Your task to perform on an android device: toggle location history Image 0: 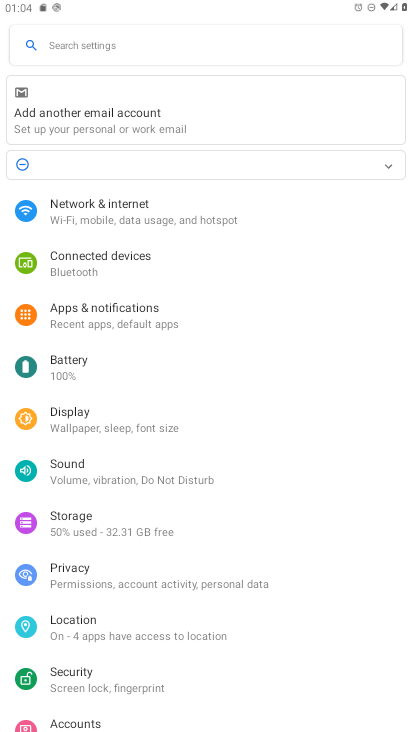
Step 0: drag from (182, 681) to (218, 390)
Your task to perform on an android device: toggle location history Image 1: 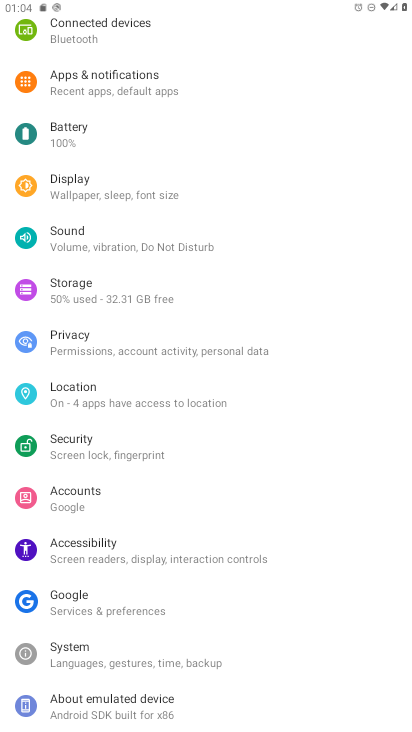
Step 1: press home button
Your task to perform on an android device: toggle location history Image 2: 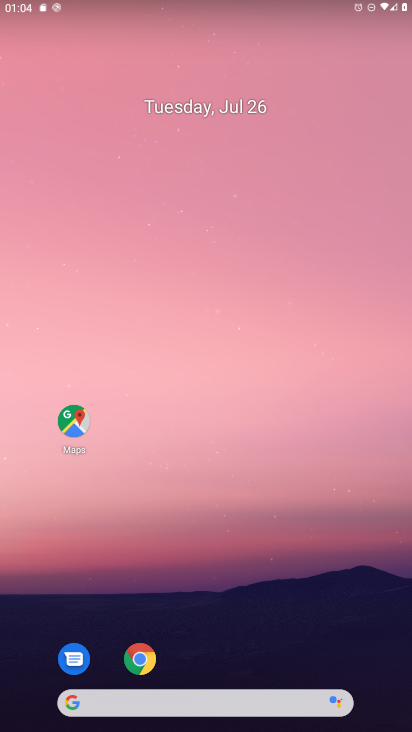
Step 2: drag from (304, 618) to (327, 180)
Your task to perform on an android device: toggle location history Image 3: 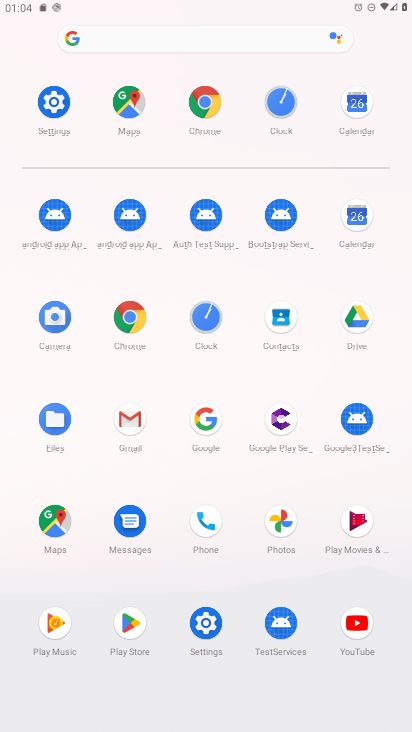
Step 3: click (131, 103)
Your task to perform on an android device: toggle location history Image 4: 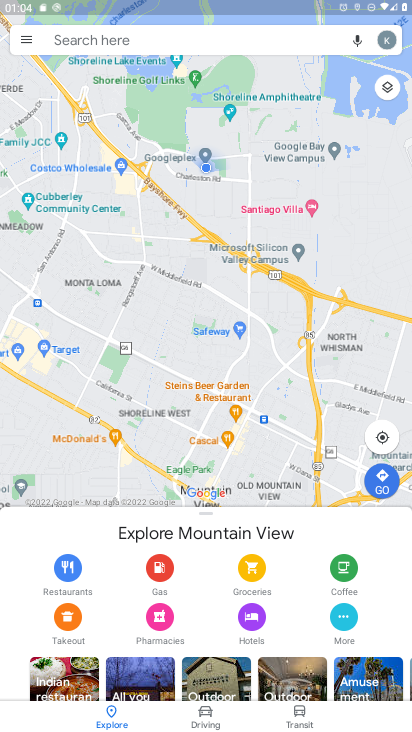
Step 4: click (21, 35)
Your task to perform on an android device: toggle location history Image 5: 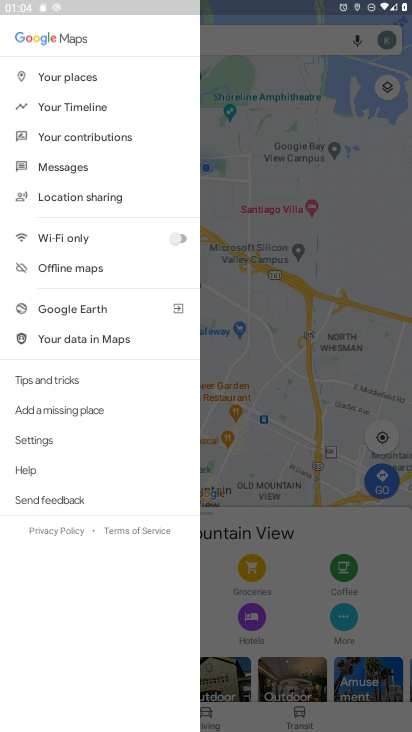
Step 5: click (95, 105)
Your task to perform on an android device: toggle location history Image 6: 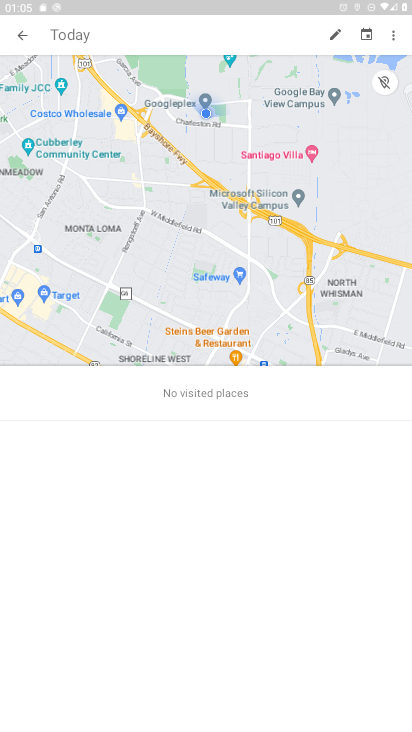
Step 6: click (388, 31)
Your task to perform on an android device: toggle location history Image 7: 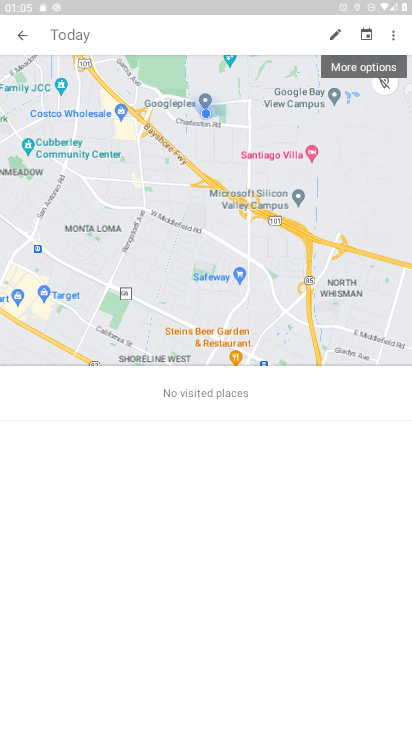
Step 7: click (387, 31)
Your task to perform on an android device: toggle location history Image 8: 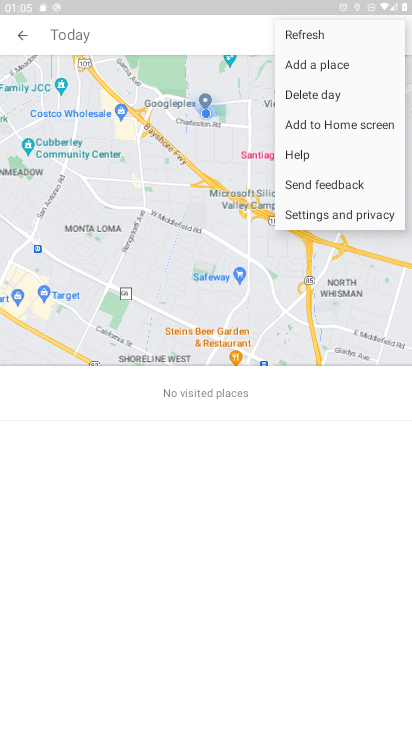
Step 8: click (319, 208)
Your task to perform on an android device: toggle location history Image 9: 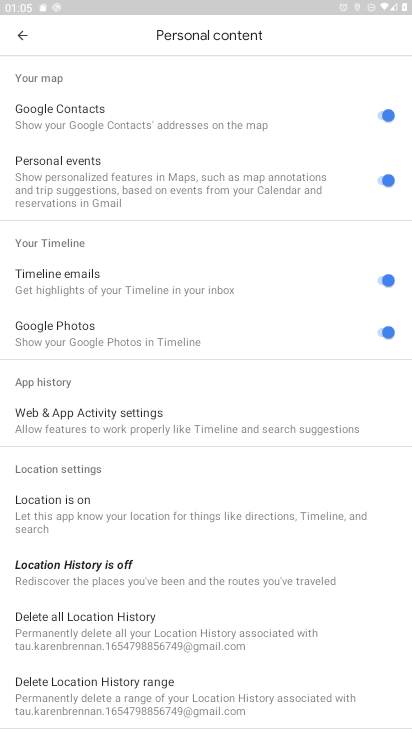
Step 9: click (112, 571)
Your task to perform on an android device: toggle location history Image 10: 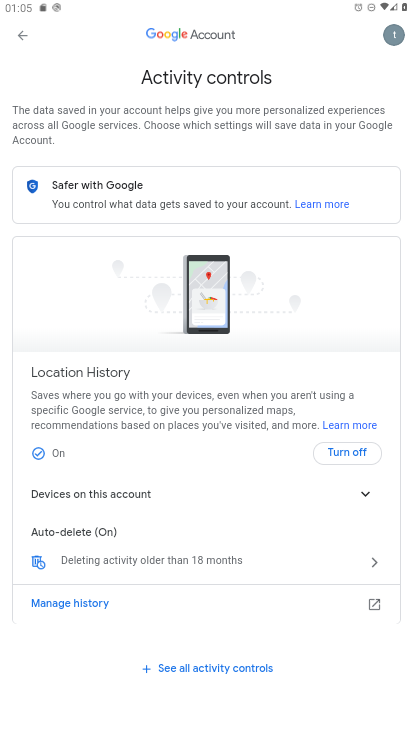
Step 10: click (353, 448)
Your task to perform on an android device: toggle location history Image 11: 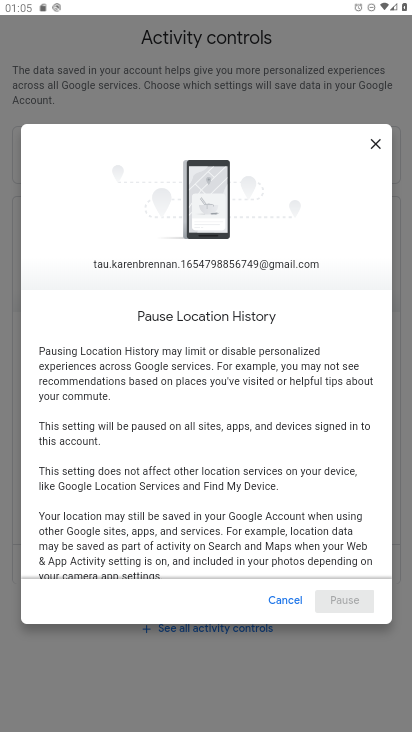
Step 11: drag from (334, 552) to (350, 225)
Your task to perform on an android device: toggle location history Image 12: 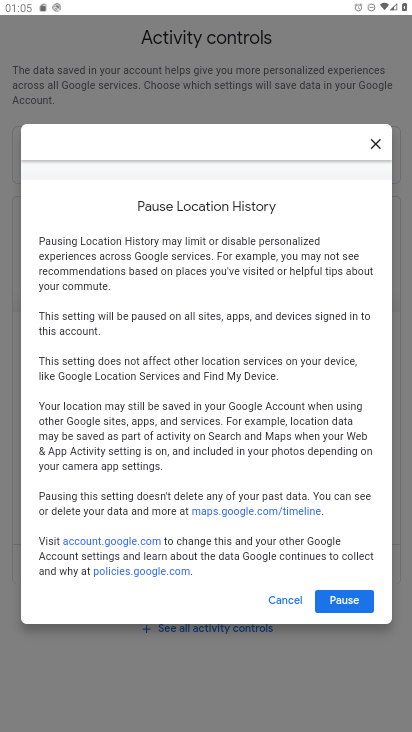
Step 12: click (353, 591)
Your task to perform on an android device: toggle location history Image 13: 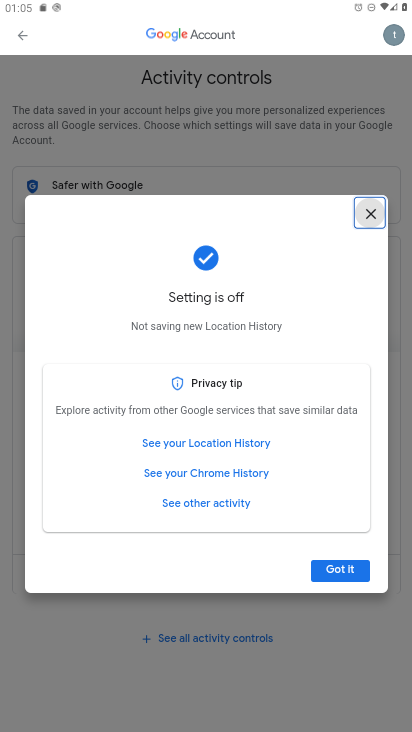
Step 13: click (332, 559)
Your task to perform on an android device: toggle location history Image 14: 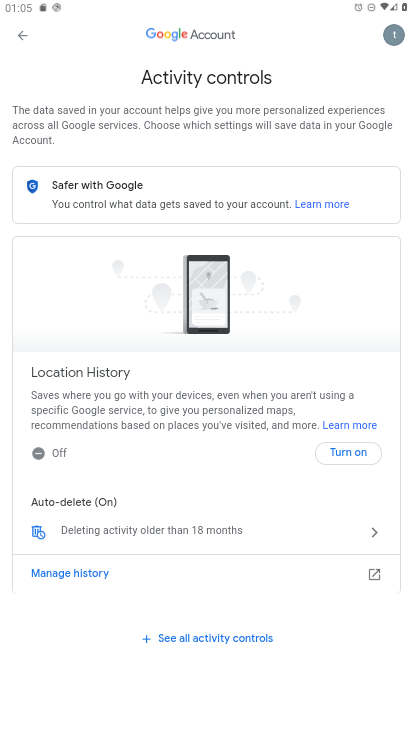
Step 14: task complete